Your task to perform on an android device: Open privacy settings Image 0: 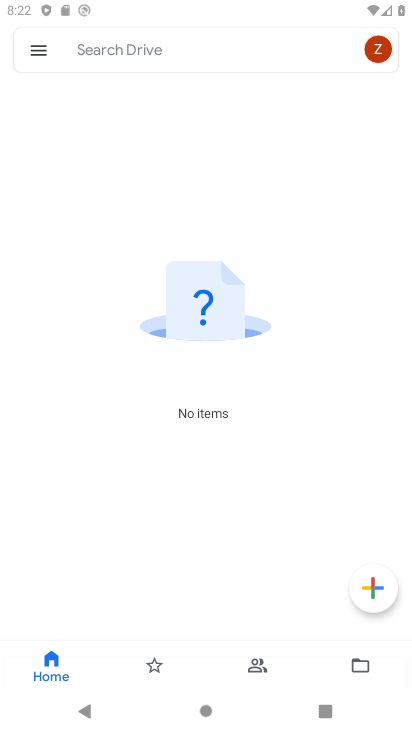
Step 0: press home button
Your task to perform on an android device: Open privacy settings Image 1: 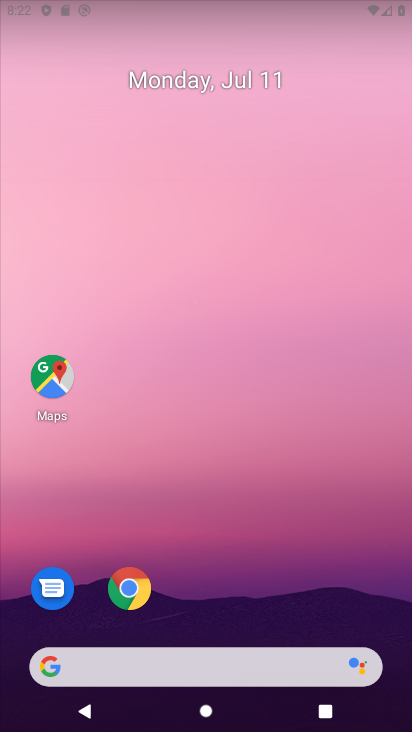
Step 1: drag from (151, 703) to (394, 29)
Your task to perform on an android device: Open privacy settings Image 2: 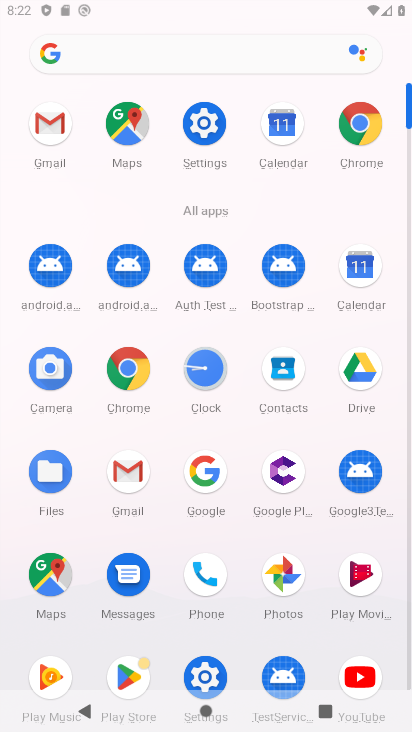
Step 2: click (206, 109)
Your task to perform on an android device: Open privacy settings Image 3: 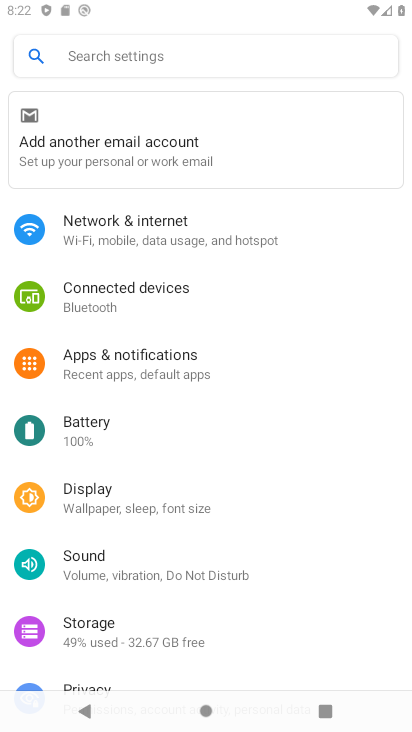
Step 3: click (82, 685)
Your task to perform on an android device: Open privacy settings Image 4: 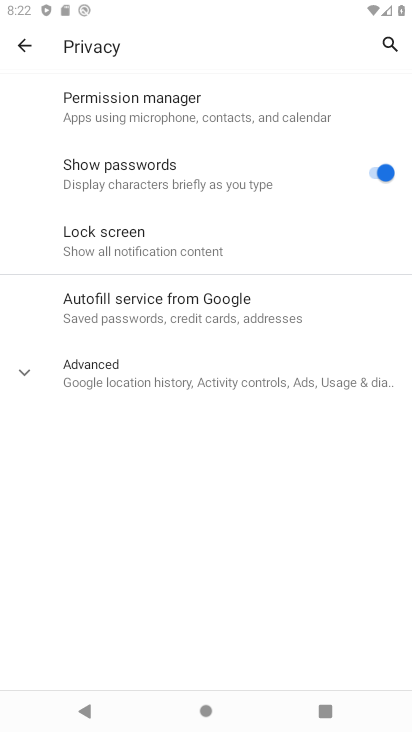
Step 4: task complete